Your task to perform on an android device: open the mobile data screen to see how much data has been used Image 0: 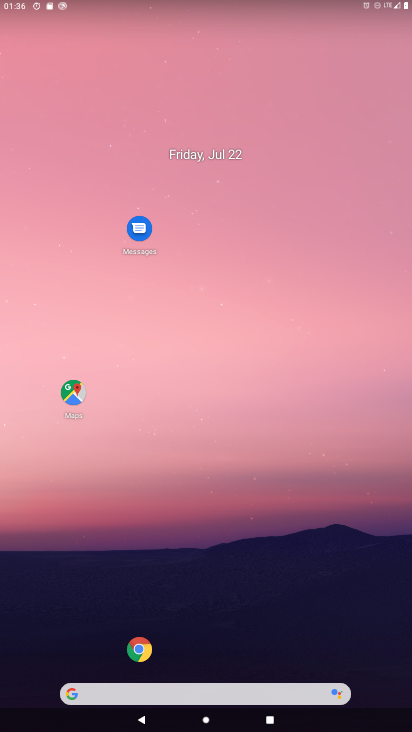
Step 0: drag from (40, 690) to (302, 145)
Your task to perform on an android device: open the mobile data screen to see how much data has been used Image 1: 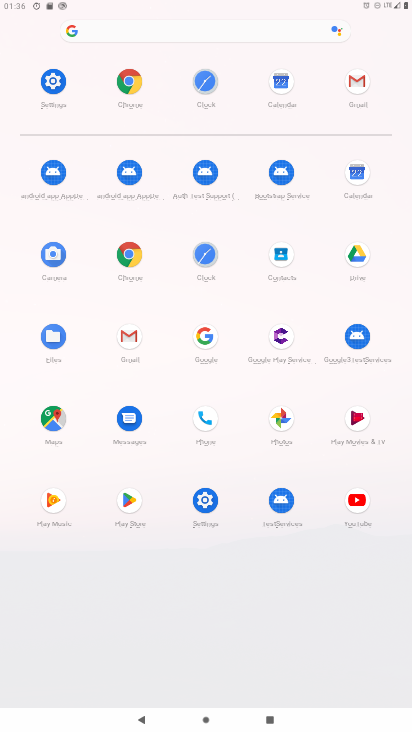
Step 1: click (207, 504)
Your task to perform on an android device: open the mobile data screen to see how much data has been used Image 2: 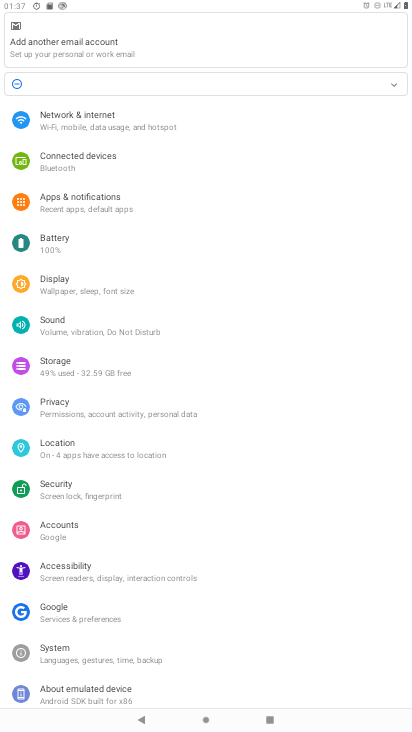
Step 2: click (85, 121)
Your task to perform on an android device: open the mobile data screen to see how much data has been used Image 3: 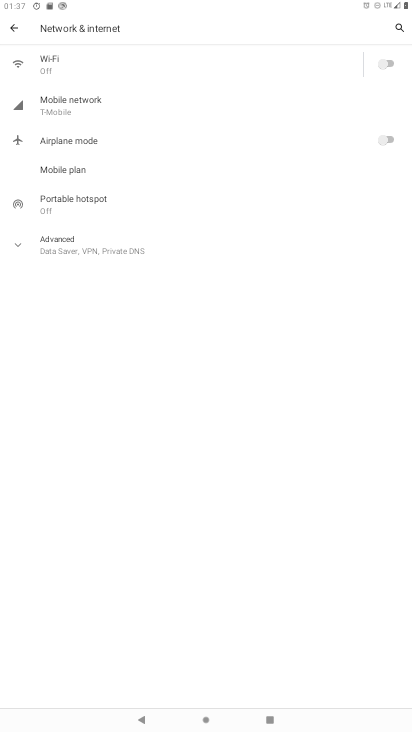
Step 3: click (74, 105)
Your task to perform on an android device: open the mobile data screen to see how much data has been used Image 4: 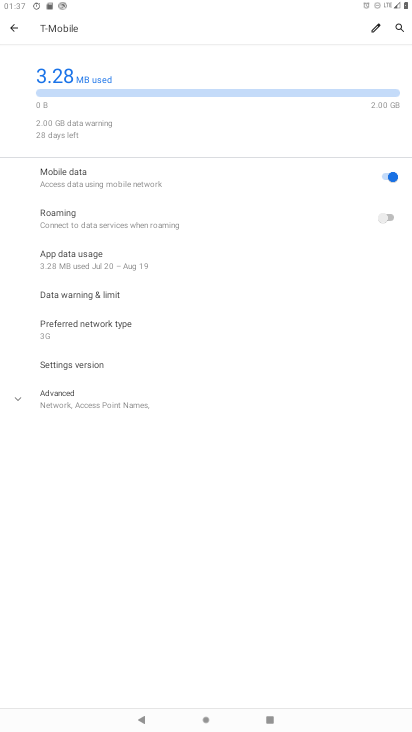
Step 4: task complete